Your task to perform on an android device: set the timer Image 0: 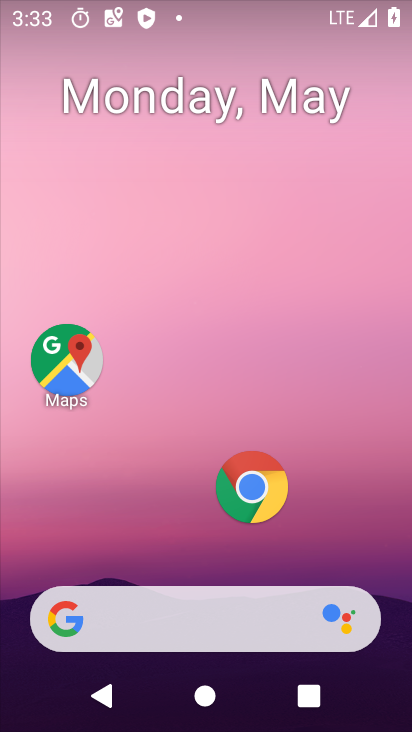
Step 0: drag from (188, 540) to (235, 22)
Your task to perform on an android device: set the timer Image 1: 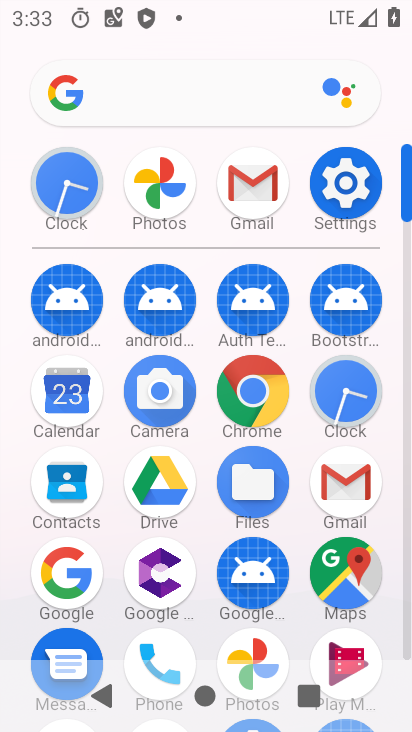
Step 1: click (342, 394)
Your task to perform on an android device: set the timer Image 2: 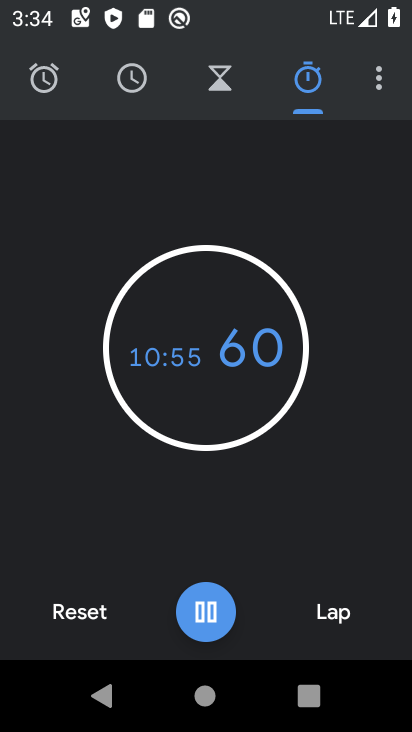
Step 2: click (213, 74)
Your task to perform on an android device: set the timer Image 3: 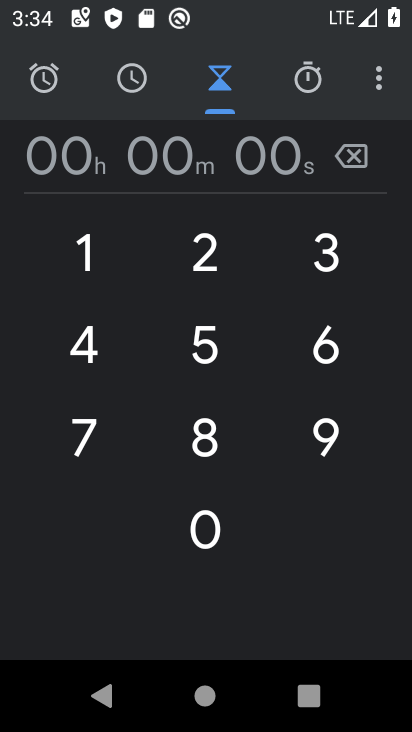
Step 3: click (201, 433)
Your task to perform on an android device: set the timer Image 4: 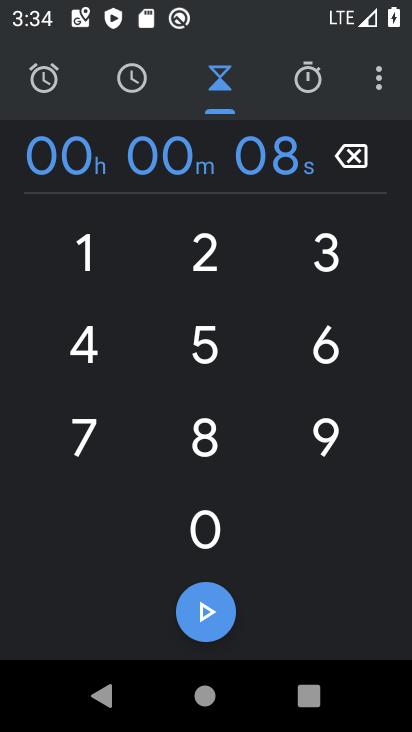
Step 4: click (201, 433)
Your task to perform on an android device: set the timer Image 5: 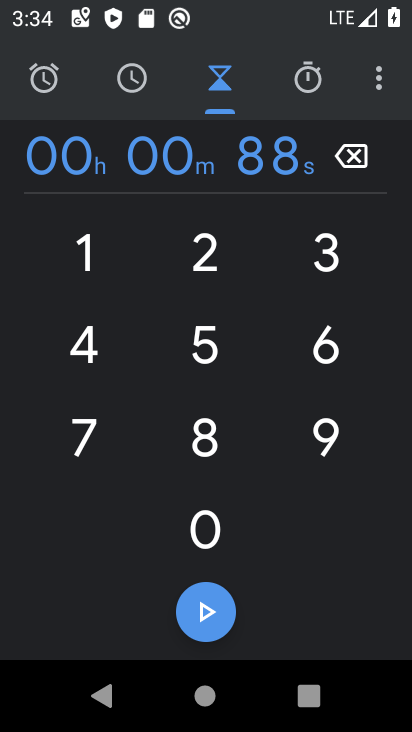
Step 5: click (197, 430)
Your task to perform on an android device: set the timer Image 6: 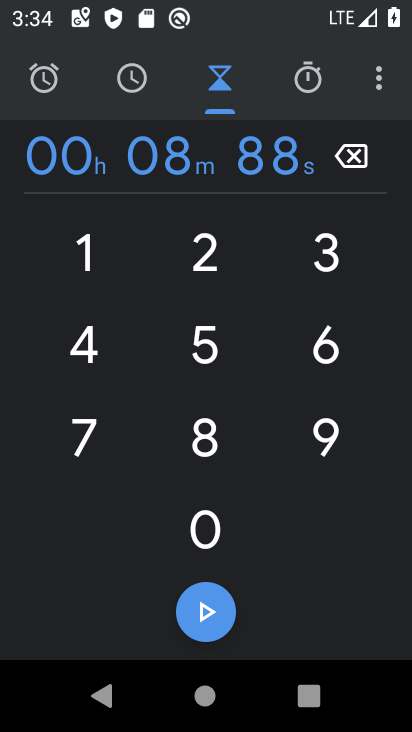
Step 6: click (197, 430)
Your task to perform on an android device: set the timer Image 7: 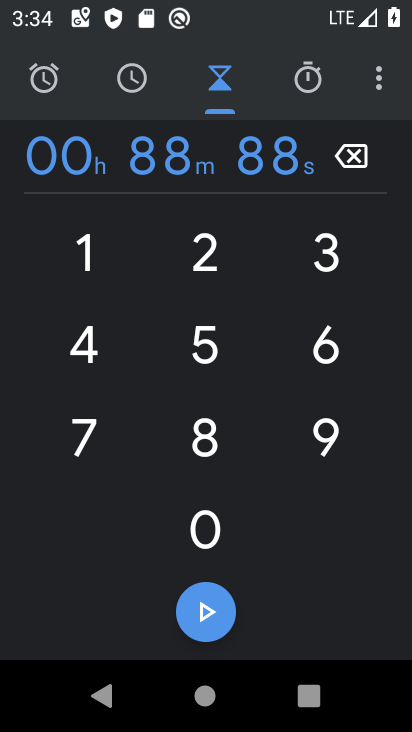
Step 7: click (197, 430)
Your task to perform on an android device: set the timer Image 8: 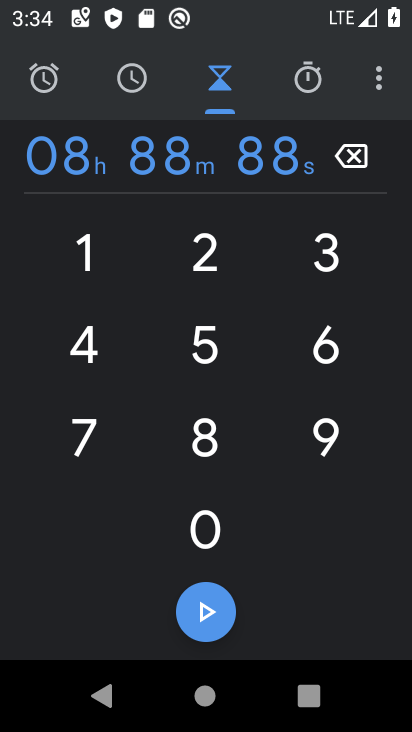
Step 8: click (197, 430)
Your task to perform on an android device: set the timer Image 9: 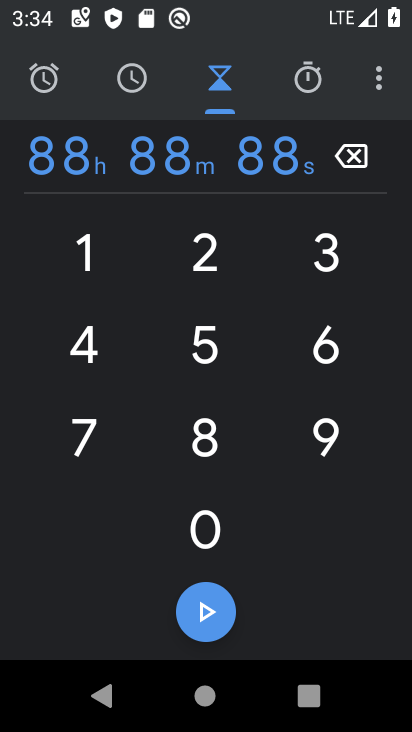
Step 9: click (207, 619)
Your task to perform on an android device: set the timer Image 10: 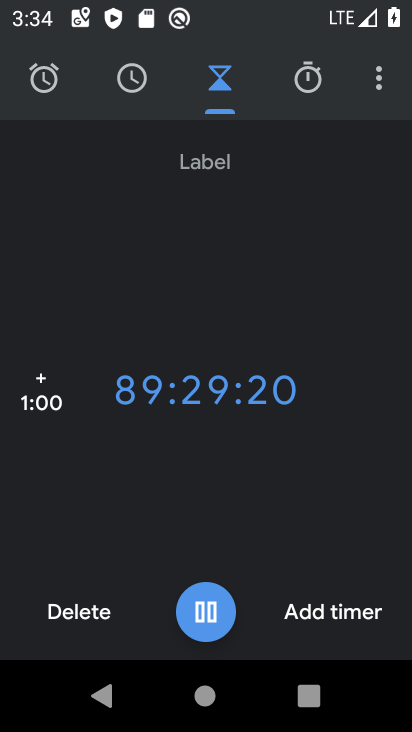
Step 10: task complete